Your task to perform on an android device: turn off smart reply in the gmail app Image 0: 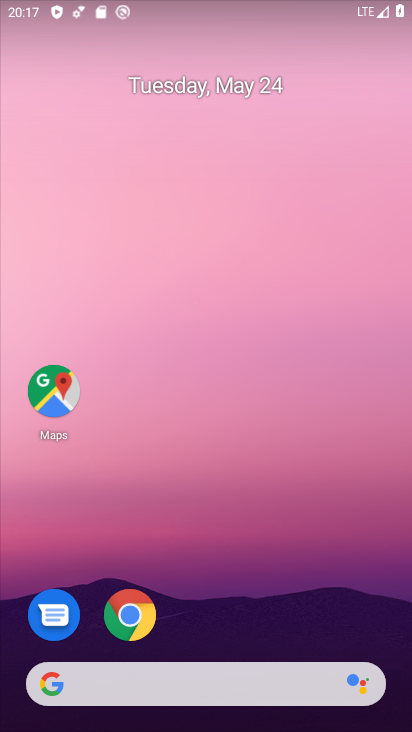
Step 0: drag from (267, 484) to (284, 323)
Your task to perform on an android device: turn off smart reply in the gmail app Image 1: 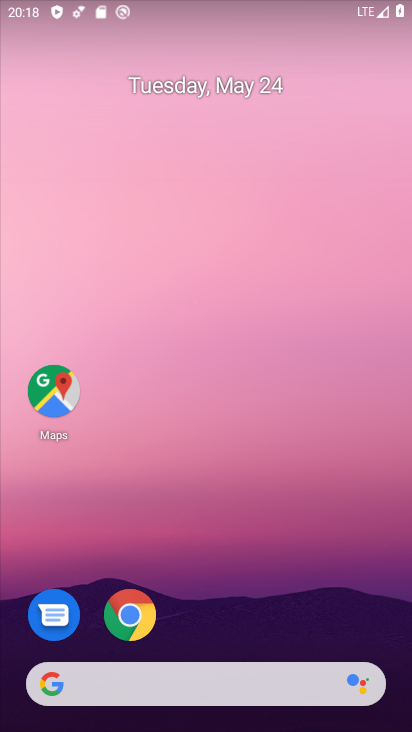
Step 1: drag from (200, 612) to (229, 305)
Your task to perform on an android device: turn off smart reply in the gmail app Image 2: 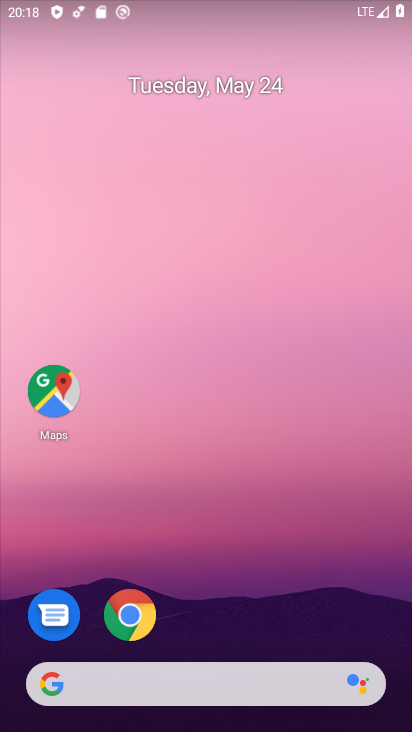
Step 2: drag from (216, 649) to (220, 195)
Your task to perform on an android device: turn off smart reply in the gmail app Image 3: 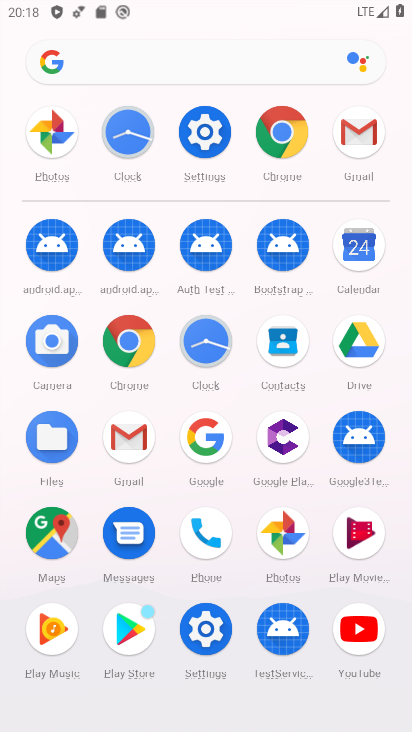
Step 3: click (115, 437)
Your task to perform on an android device: turn off smart reply in the gmail app Image 4: 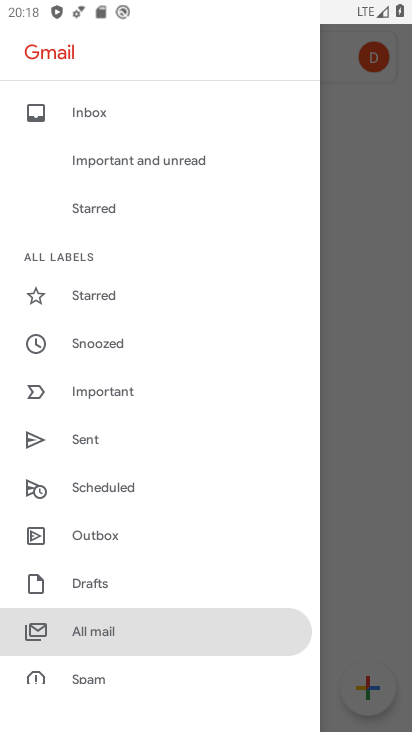
Step 4: drag from (148, 595) to (196, 157)
Your task to perform on an android device: turn off smart reply in the gmail app Image 5: 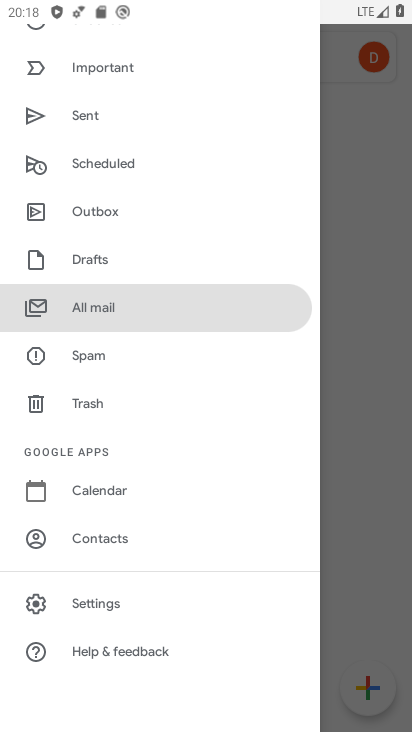
Step 5: click (110, 610)
Your task to perform on an android device: turn off smart reply in the gmail app Image 6: 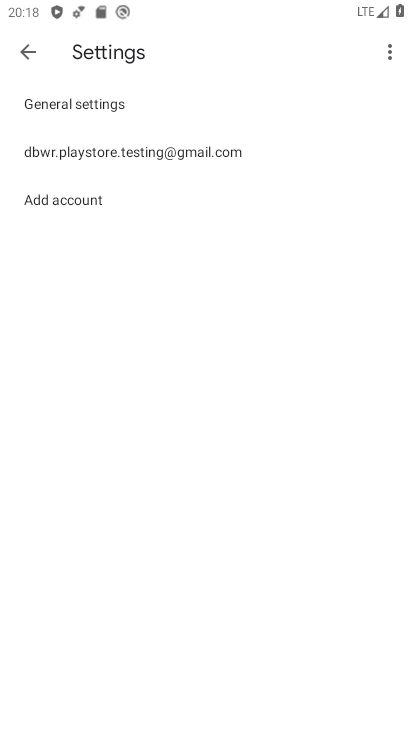
Step 6: click (216, 142)
Your task to perform on an android device: turn off smart reply in the gmail app Image 7: 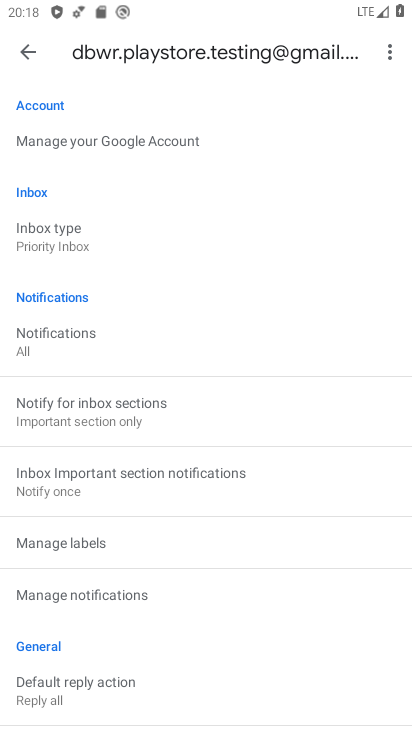
Step 7: drag from (208, 568) to (233, 158)
Your task to perform on an android device: turn off smart reply in the gmail app Image 8: 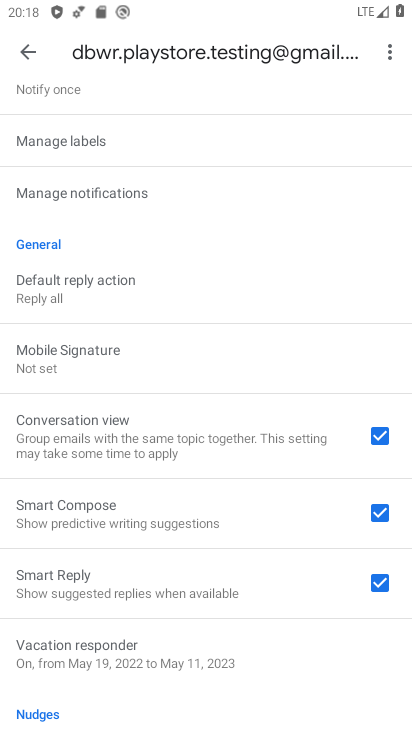
Step 8: click (381, 578)
Your task to perform on an android device: turn off smart reply in the gmail app Image 9: 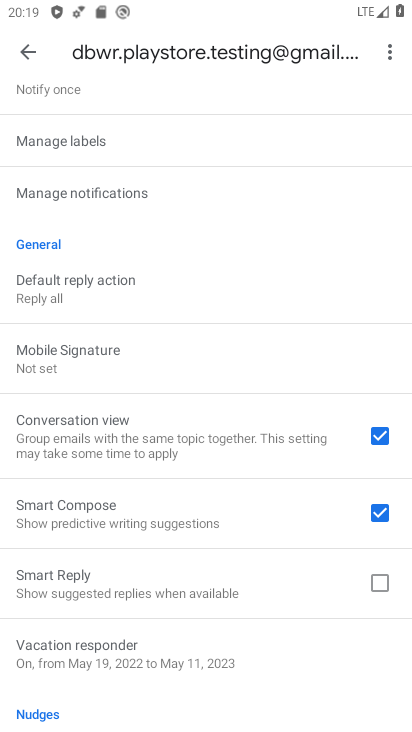
Step 9: task complete